Your task to perform on an android device: Go to internet settings Image 0: 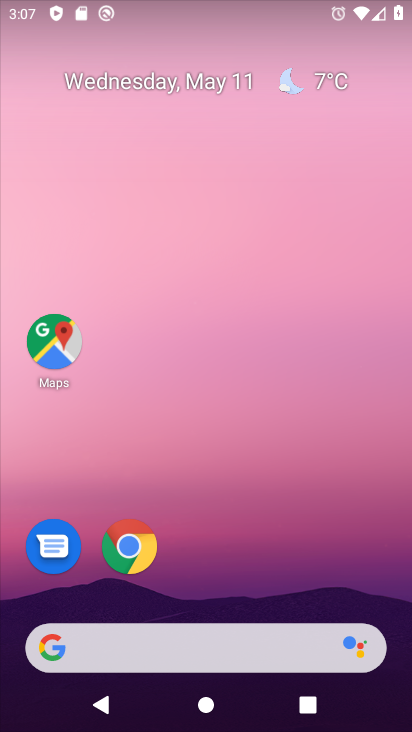
Step 0: click (262, 59)
Your task to perform on an android device: Go to internet settings Image 1: 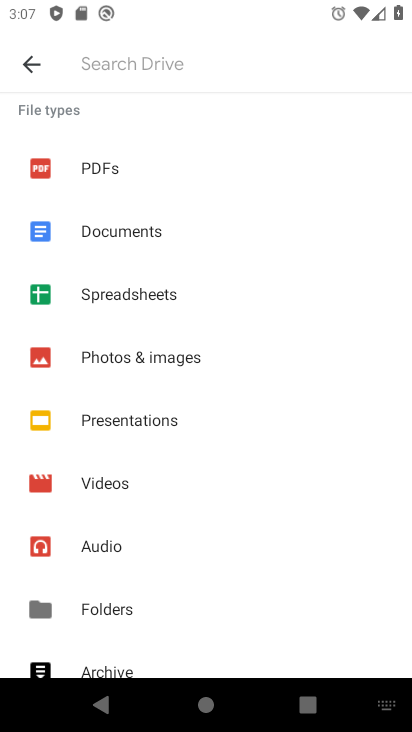
Step 1: press home button
Your task to perform on an android device: Go to internet settings Image 2: 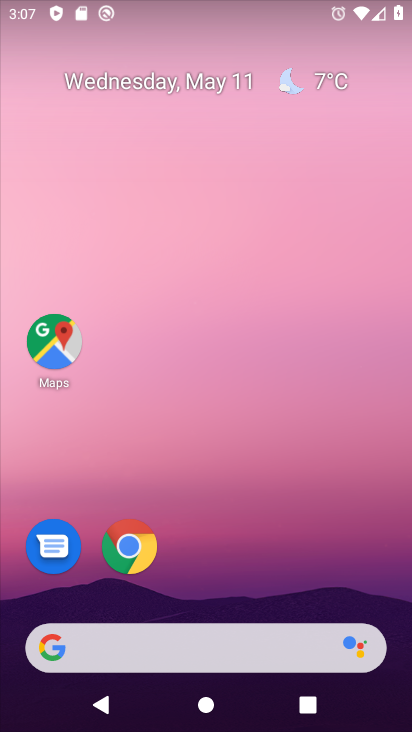
Step 2: drag from (249, 636) to (288, 88)
Your task to perform on an android device: Go to internet settings Image 3: 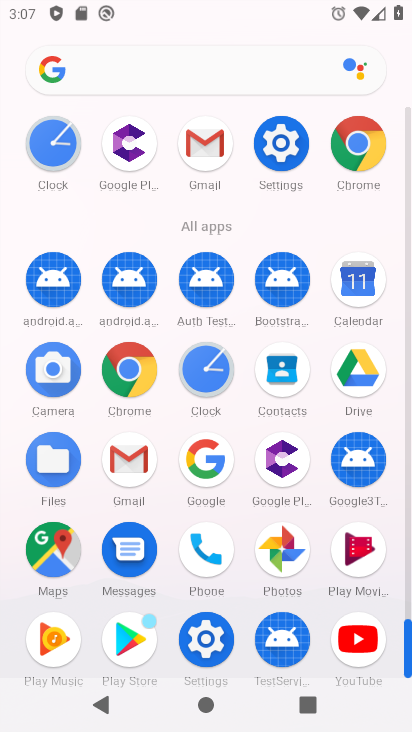
Step 3: click (277, 145)
Your task to perform on an android device: Go to internet settings Image 4: 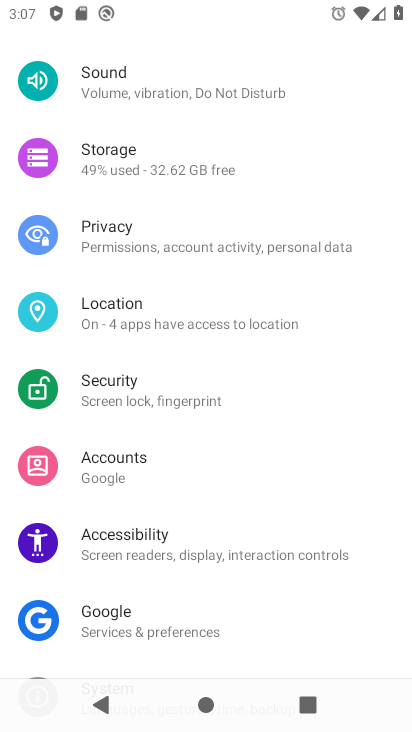
Step 4: drag from (246, 175) to (155, 708)
Your task to perform on an android device: Go to internet settings Image 5: 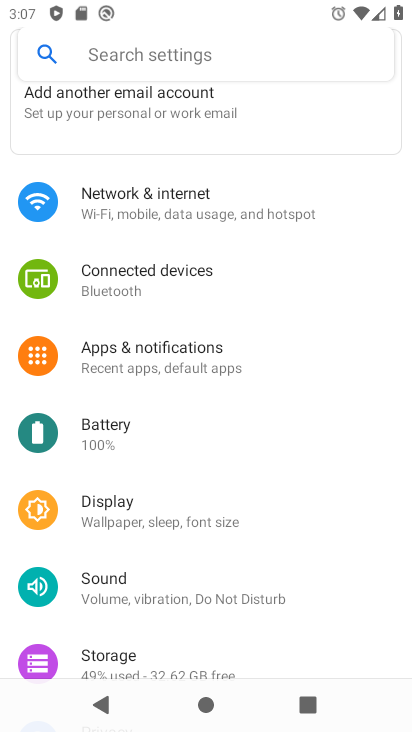
Step 5: click (173, 203)
Your task to perform on an android device: Go to internet settings Image 6: 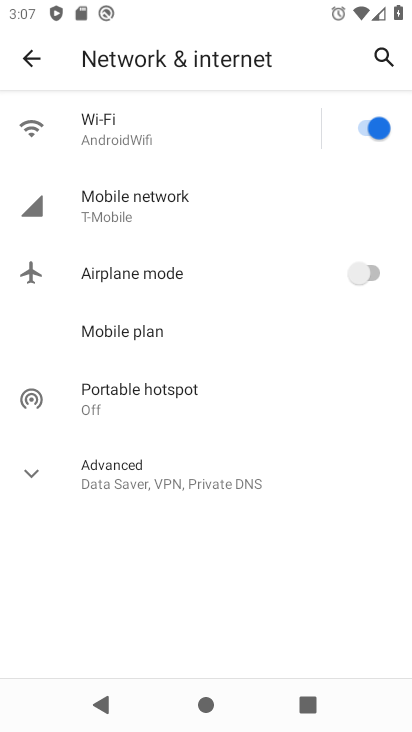
Step 6: task complete